Your task to perform on an android device: open chrome and create a bookmark for the current page Image 0: 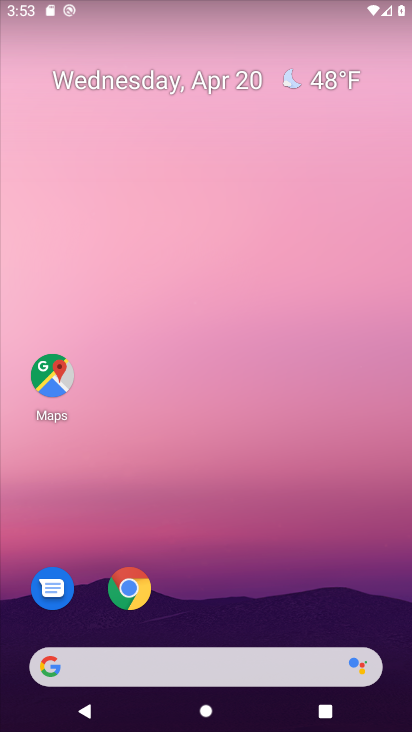
Step 0: drag from (318, 585) to (379, 155)
Your task to perform on an android device: open chrome and create a bookmark for the current page Image 1: 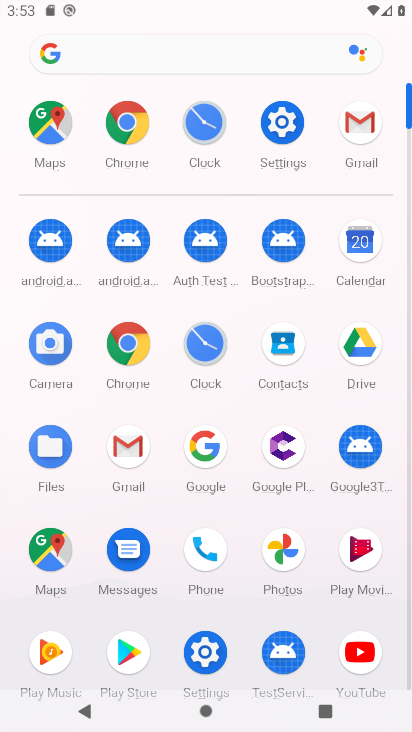
Step 1: click (115, 343)
Your task to perform on an android device: open chrome and create a bookmark for the current page Image 2: 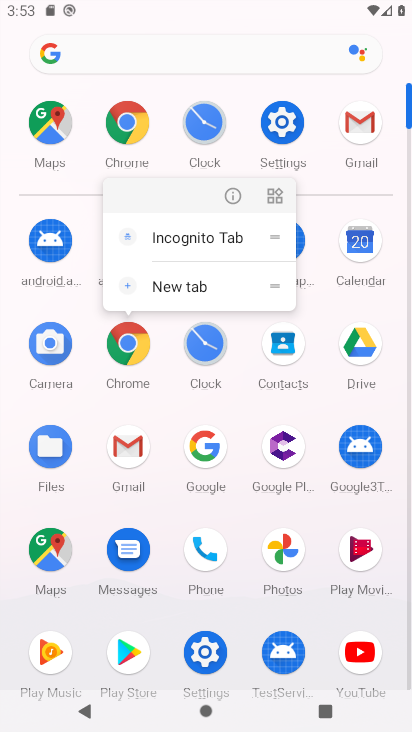
Step 2: click (136, 336)
Your task to perform on an android device: open chrome and create a bookmark for the current page Image 3: 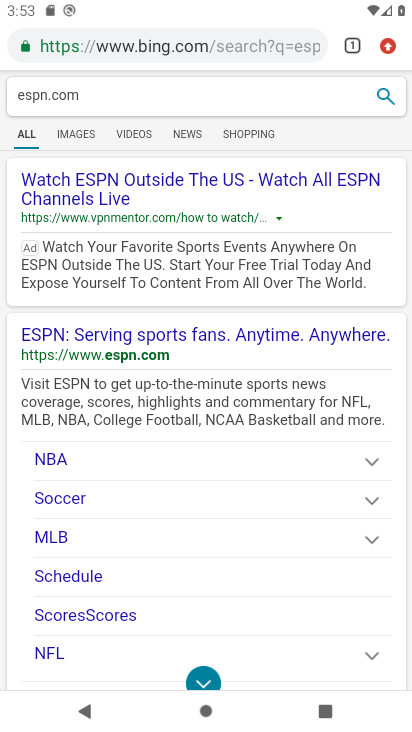
Step 3: click (394, 43)
Your task to perform on an android device: open chrome and create a bookmark for the current page Image 4: 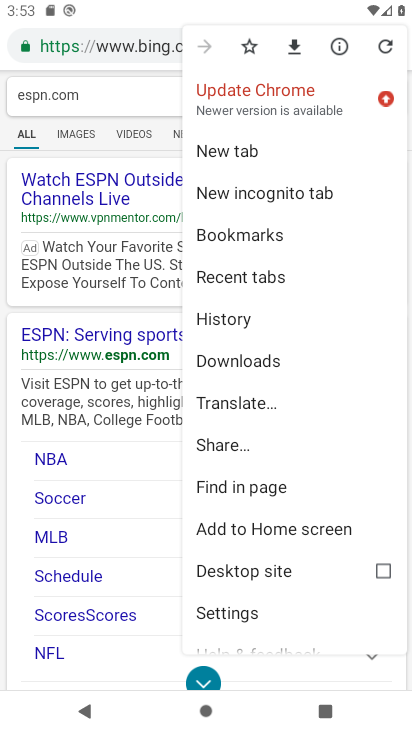
Step 4: click (245, 43)
Your task to perform on an android device: open chrome and create a bookmark for the current page Image 5: 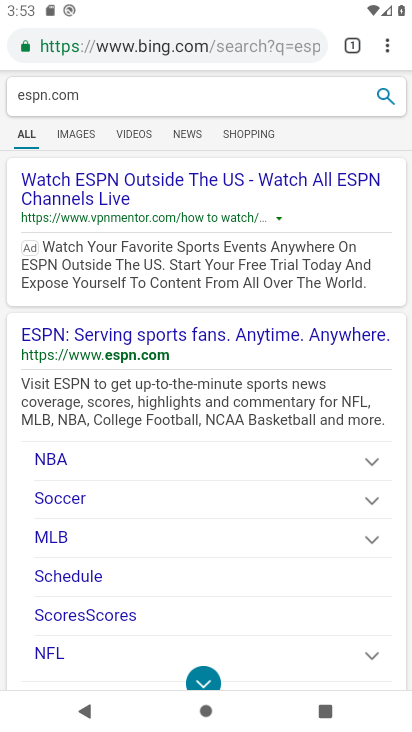
Step 5: task complete